Your task to perform on an android device: Search for the ikea sjalv lamp Image 0: 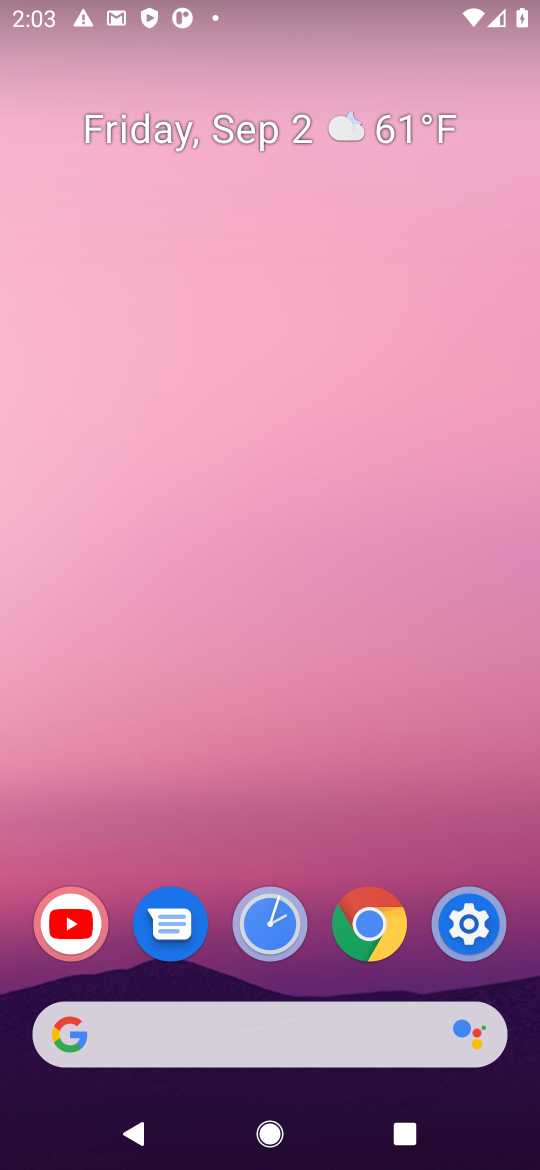
Step 0: press home button
Your task to perform on an android device: Search for the ikea sjalv lamp Image 1: 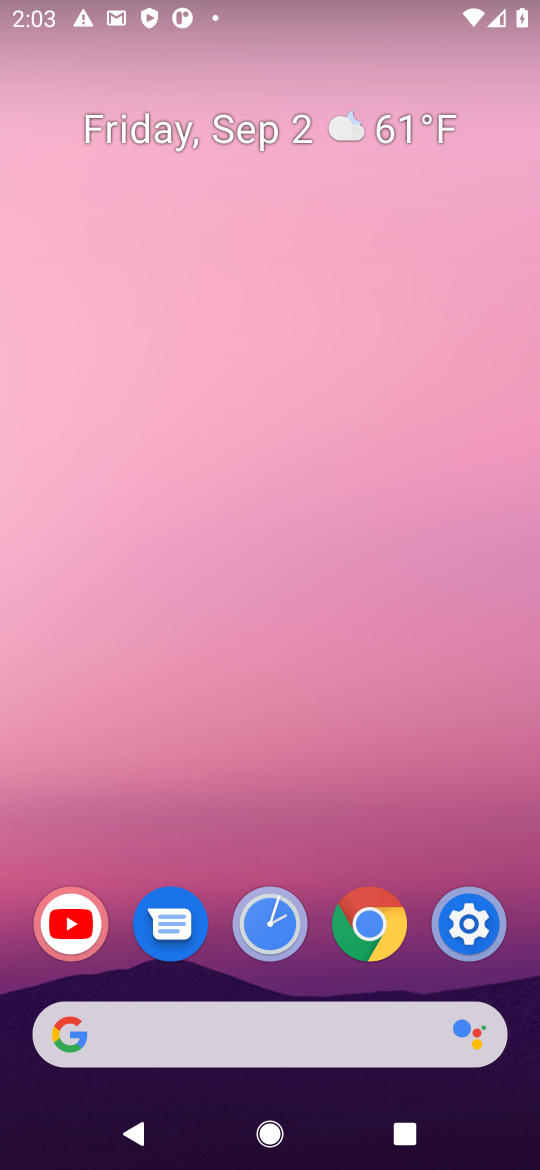
Step 1: click (385, 1044)
Your task to perform on an android device: Search for the ikea sjalv lamp Image 2: 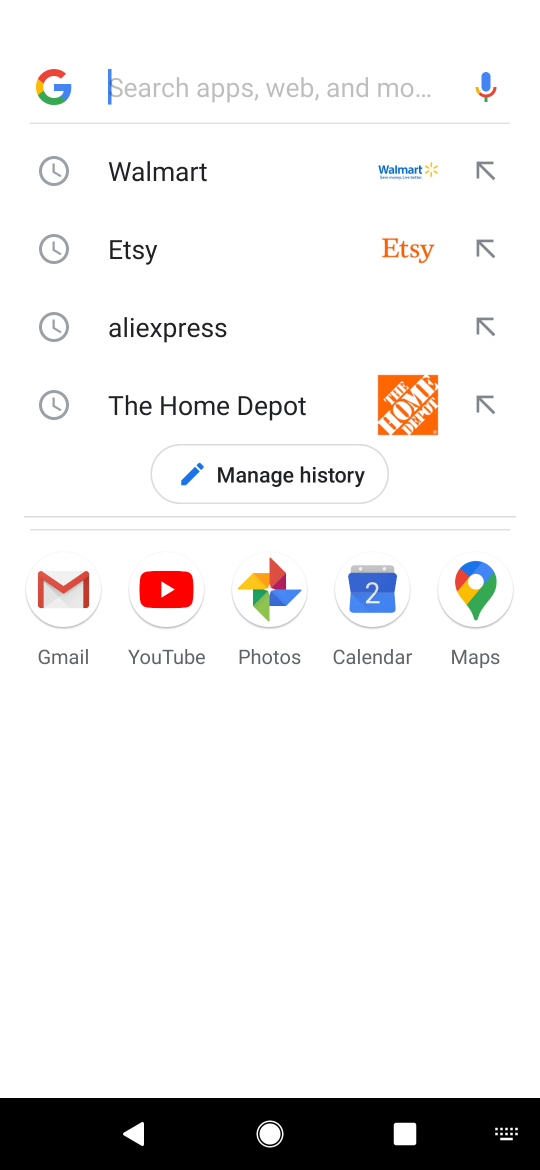
Step 2: press enter
Your task to perform on an android device: Search for the ikea sjalv lamp Image 3: 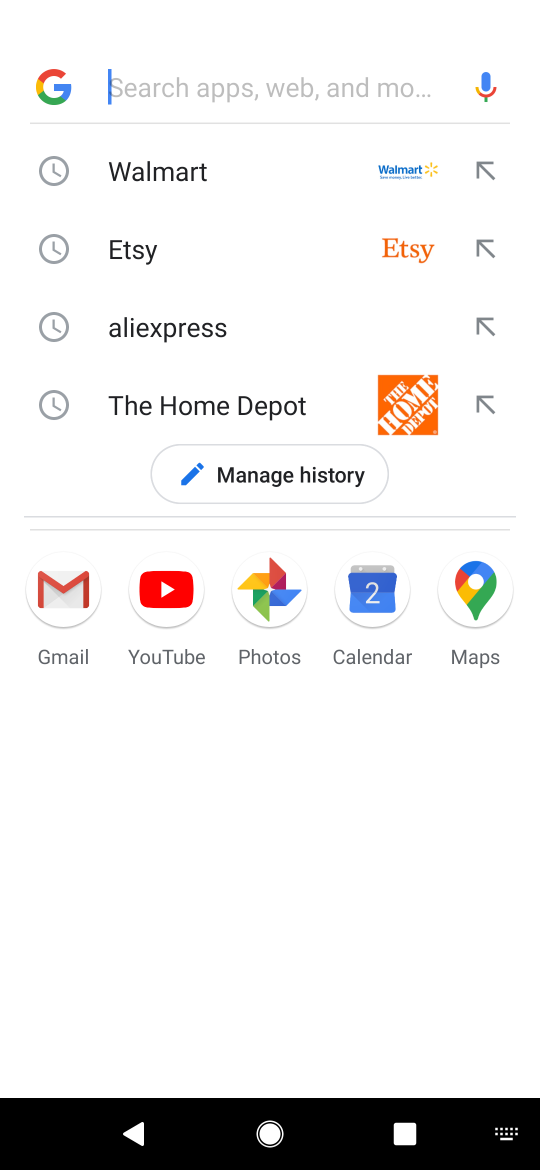
Step 3: type "ikea"
Your task to perform on an android device: Search for the ikea sjalv lamp Image 4: 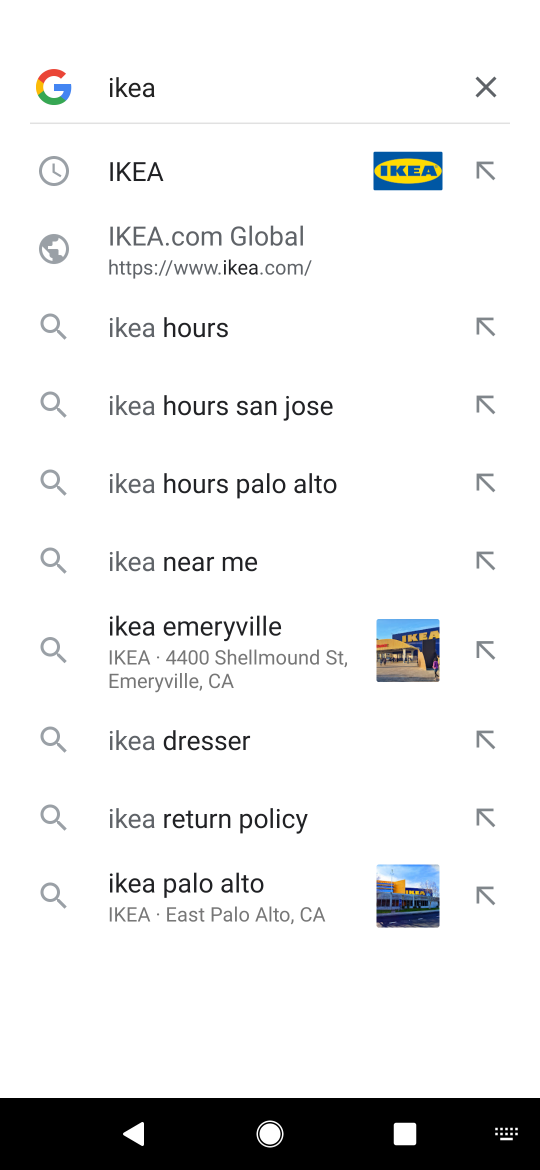
Step 4: click (220, 169)
Your task to perform on an android device: Search for the ikea sjalv lamp Image 5: 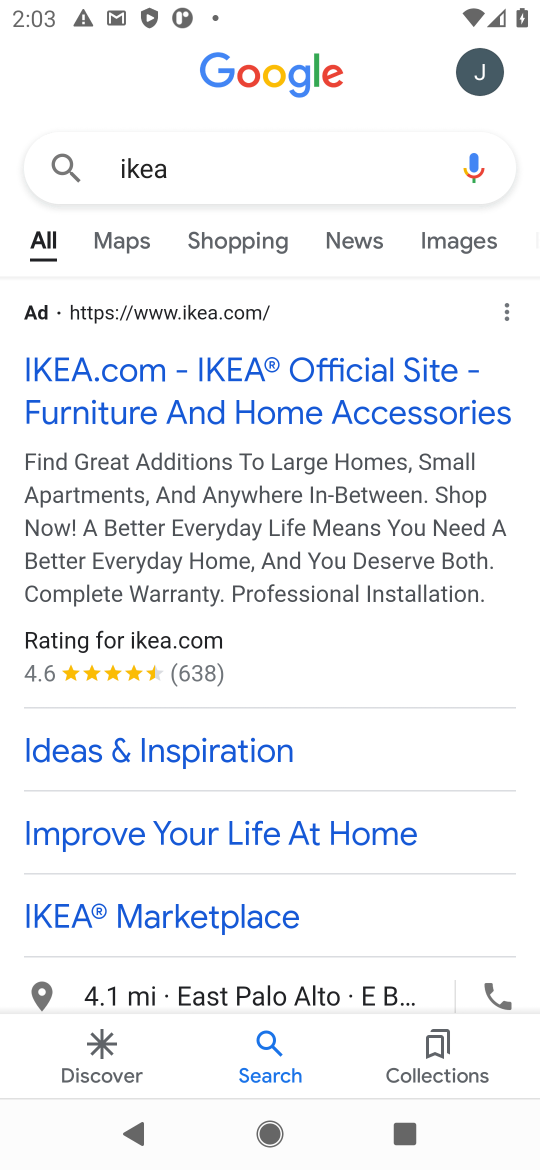
Step 5: click (262, 382)
Your task to perform on an android device: Search for the ikea sjalv lamp Image 6: 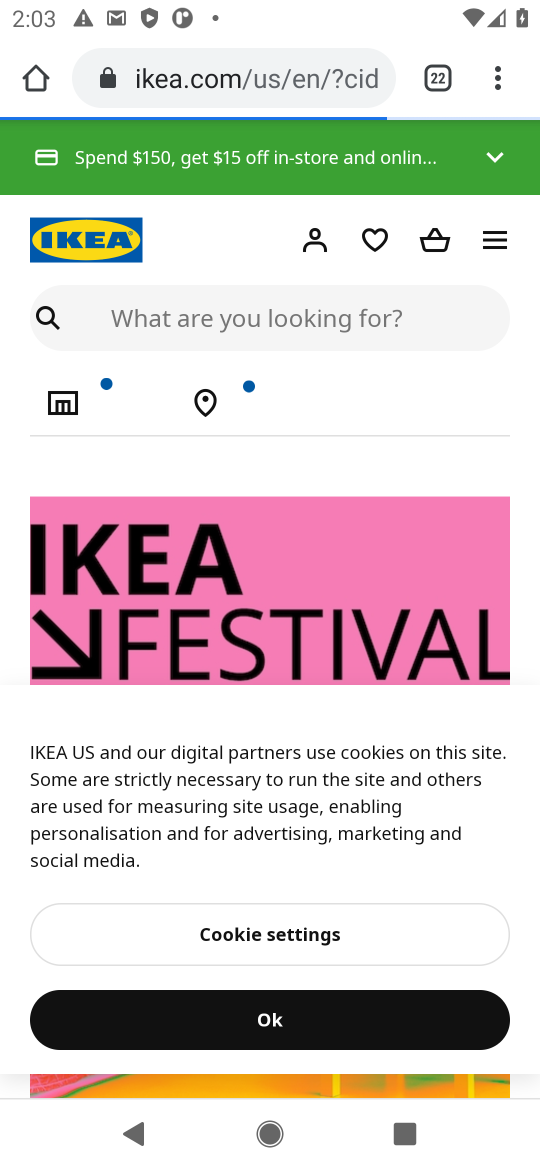
Step 6: click (345, 308)
Your task to perform on an android device: Search for the ikea sjalv lamp Image 7: 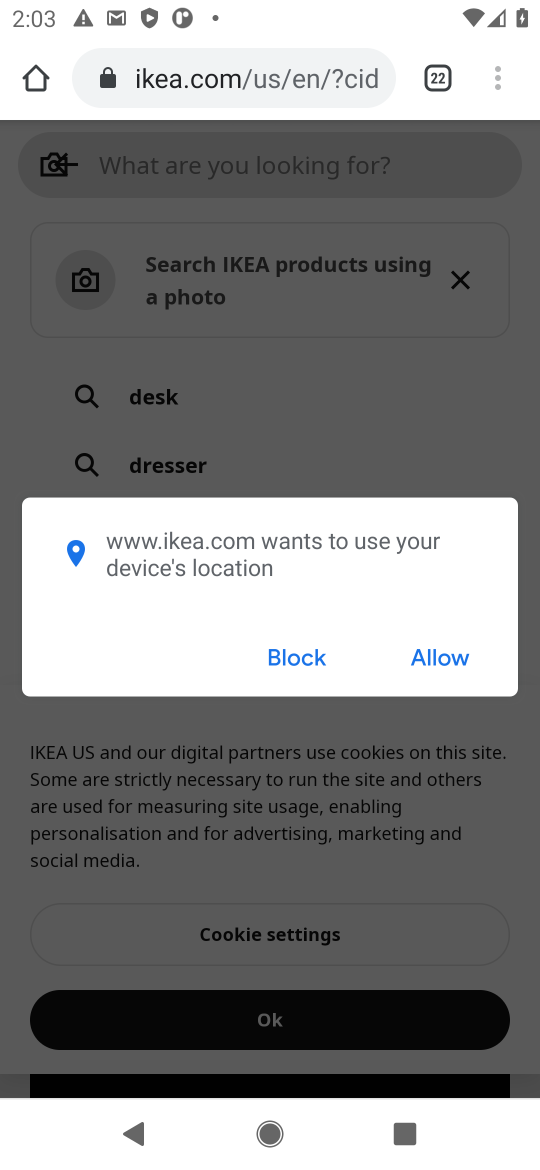
Step 7: click (275, 654)
Your task to perform on an android device: Search for the ikea sjalv lamp Image 8: 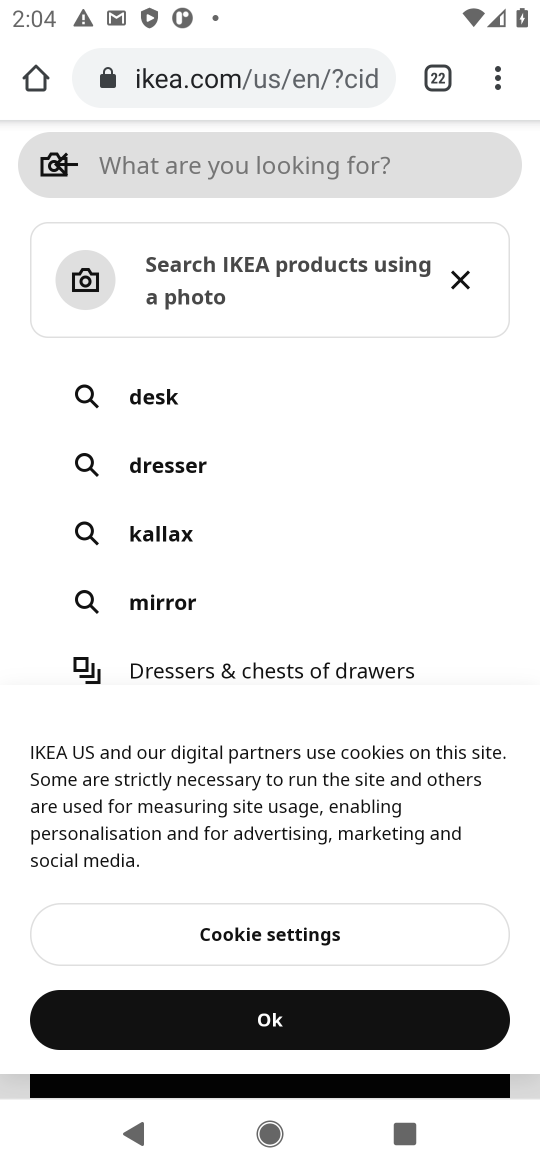
Step 8: type "sjalv lamp"
Your task to perform on an android device: Search for the ikea sjalv lamp Image 9: 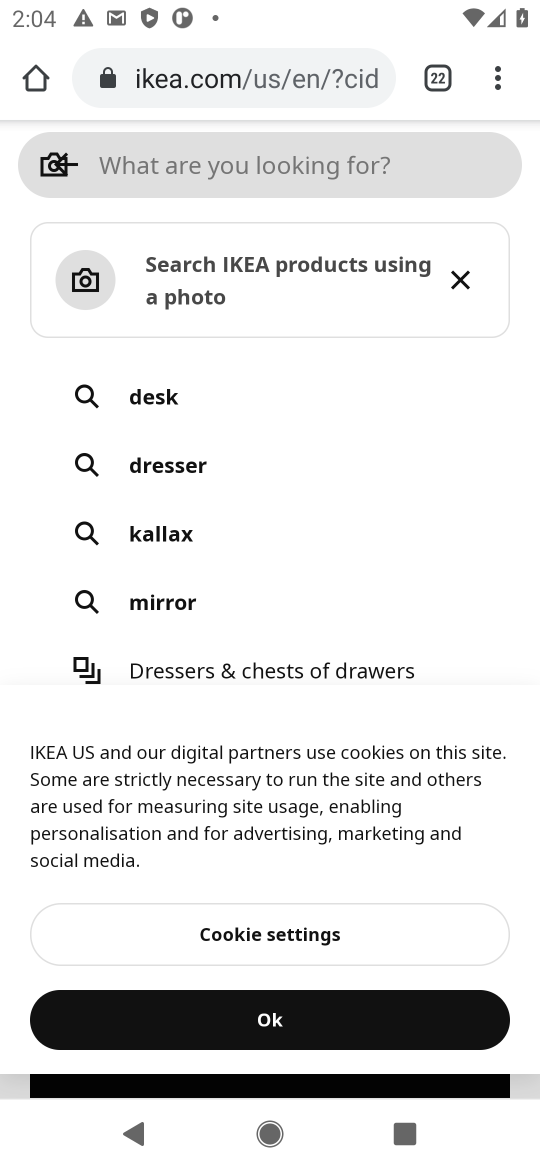
Step 9: click (163, 160)
Your task to perform on an android device: Search for the ikea sjalv lamp Image 10: 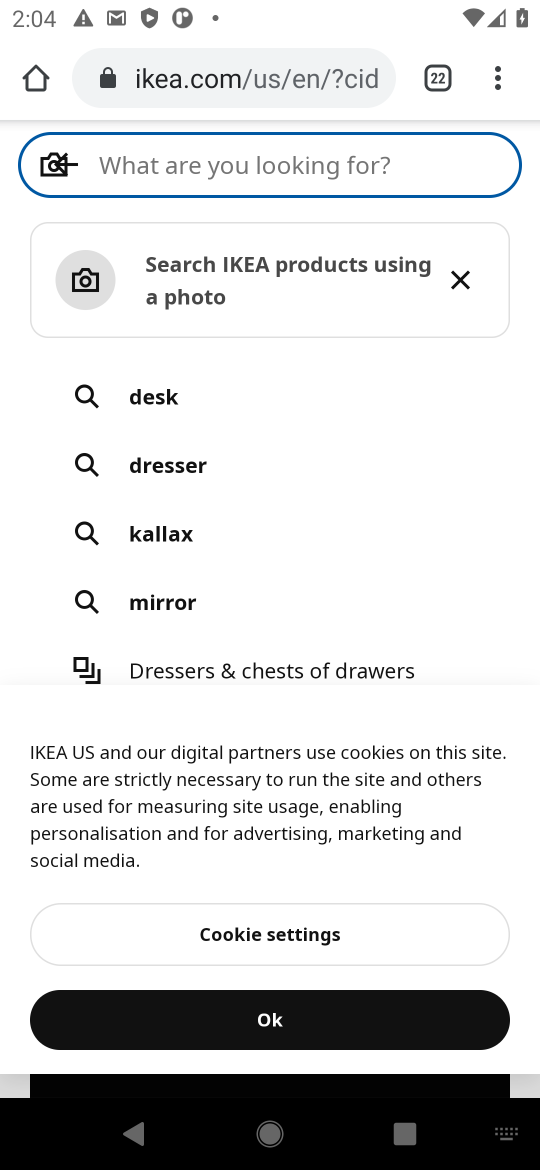
Step 10: type "sjalv lamp"
Your task to perform on an android device: Search for the ikea sjalv lamp Image 11: 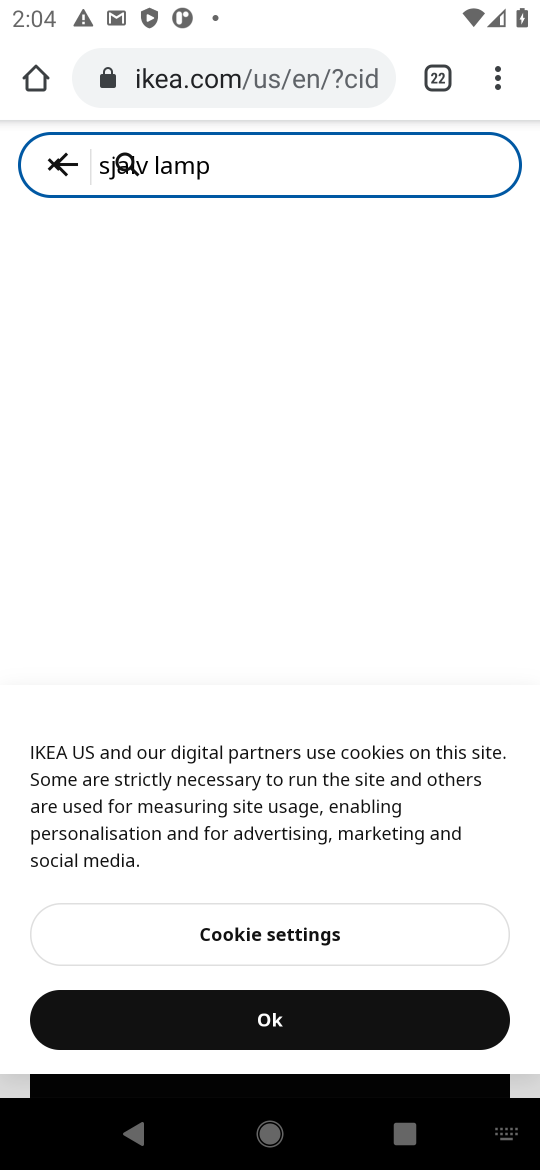
Step 11: click (273, 1020)
Your task to perform on an android device: Search for the ikea sjalv lamp Image 12: 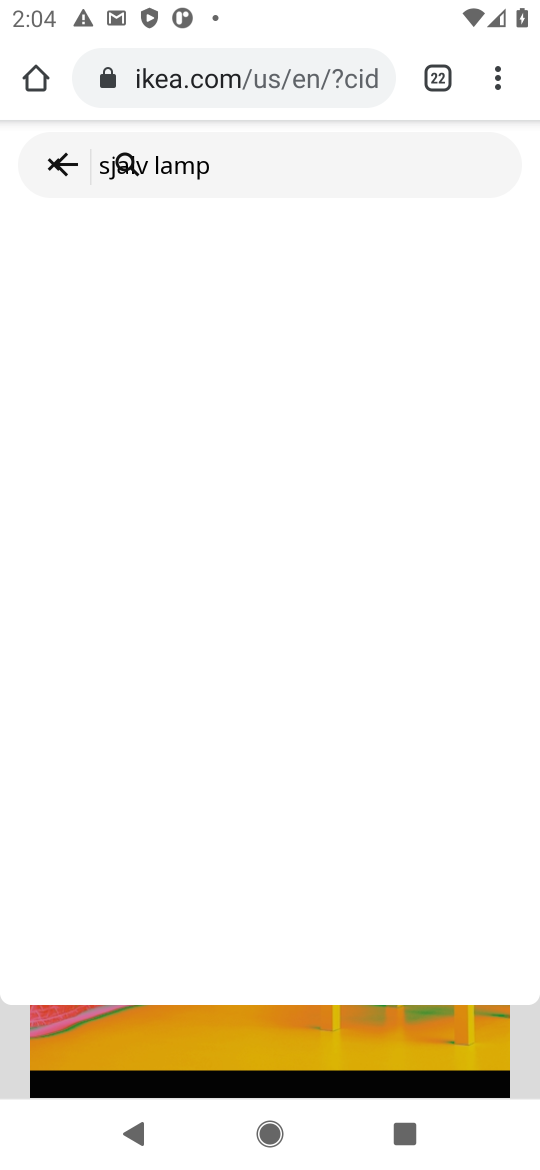
Step 12: drag from (478, 854) to (494, 319)
Your task to perform on an android device: Search for the ikea sjalv lamp Image 13: 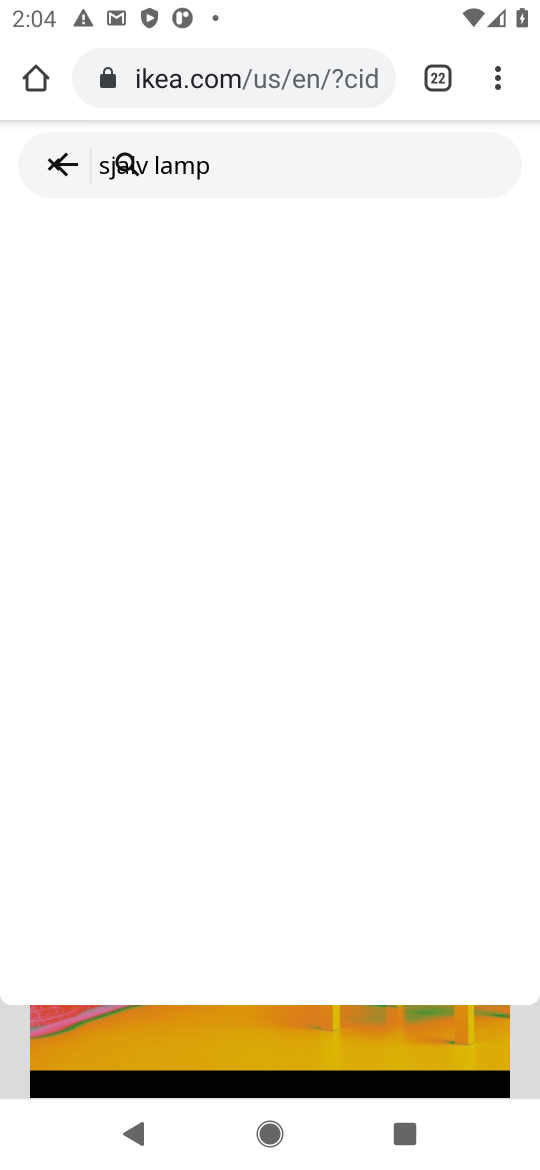
Step 13: click (50, 152)
Your task to perform on an android device: Search for the ikea sjalv lamp Image 14: 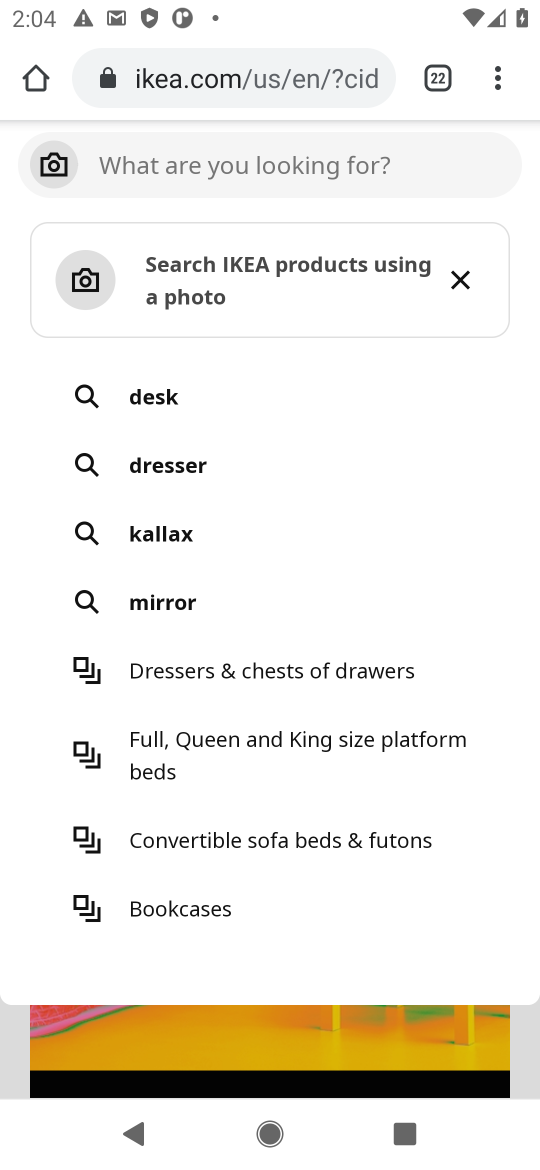
Step 14: task complete